Your task to perform on an android device: Go to Wikipedia Image 0: 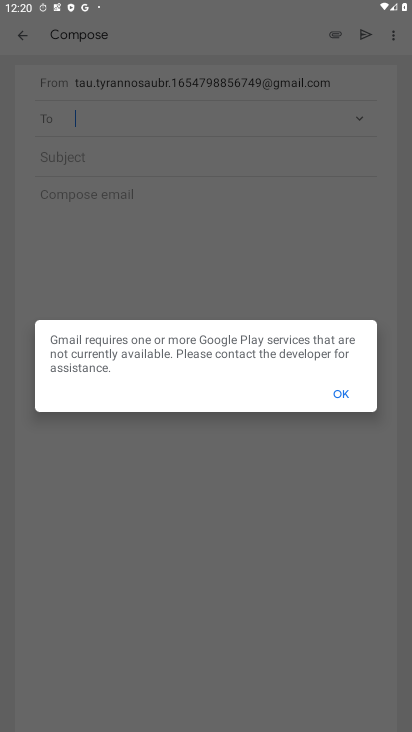
Step 0: press home button
Your task to perform on an android device: Go to Wikipedia Image 1: 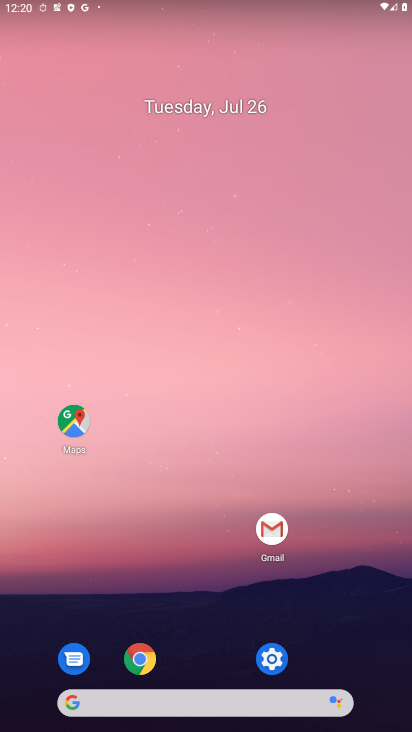
Step 1: click (151, 655)
Your task to perform on an android device: Go to Wikipedia Image 2: 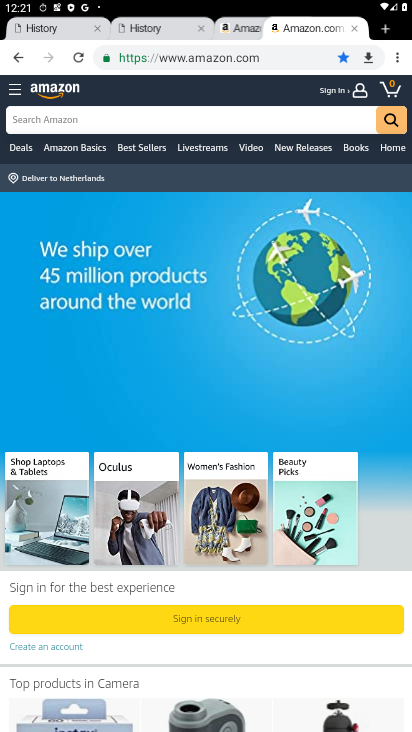
Step 2: click (398, 58)
Your task to perform on an android device: Go to Wikipedia Image 3: 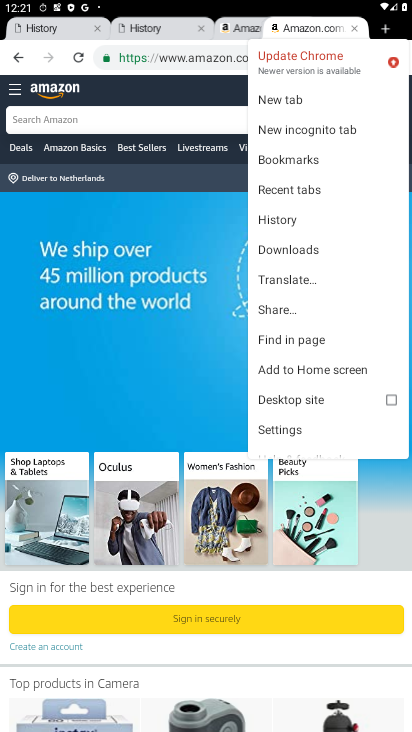
Step 3: click (285, 429)
Your task to perform on an android device: Go to Wikipedia Image 4: 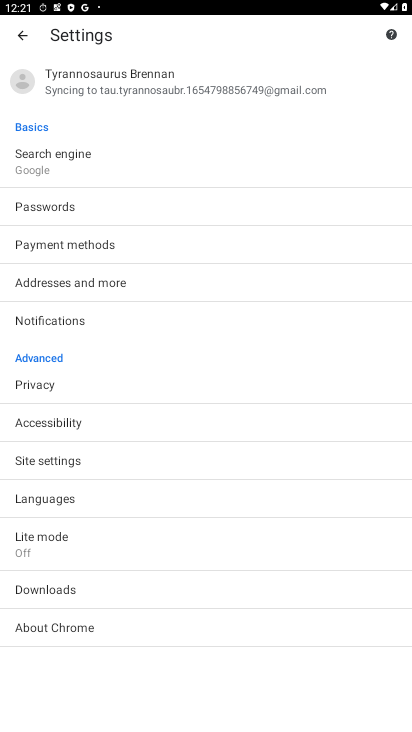
Step 4: click (26, 46)
Your task to perform on an android device: Go to Wikipedia Image 5: 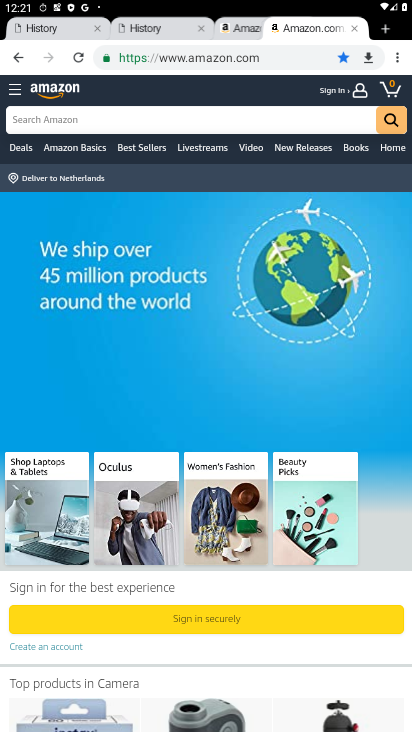
Step 5: click (385, 27)
Your task to perform on an android device: Go to Wikipedia Image 6: 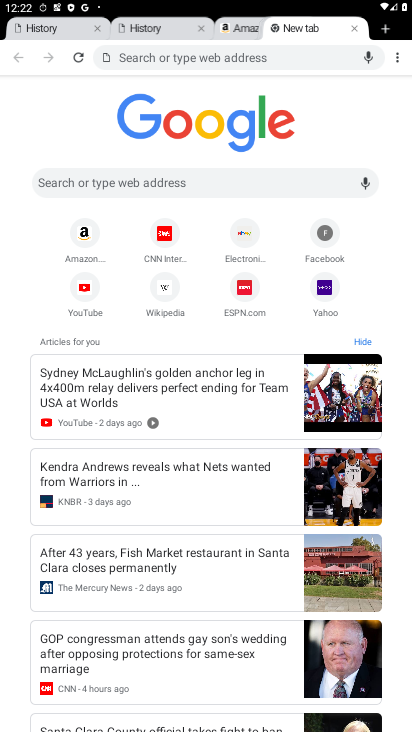
Step 6: click (162, 292)
Your task to perform on an android device: Go to Wikipedia Image 7: 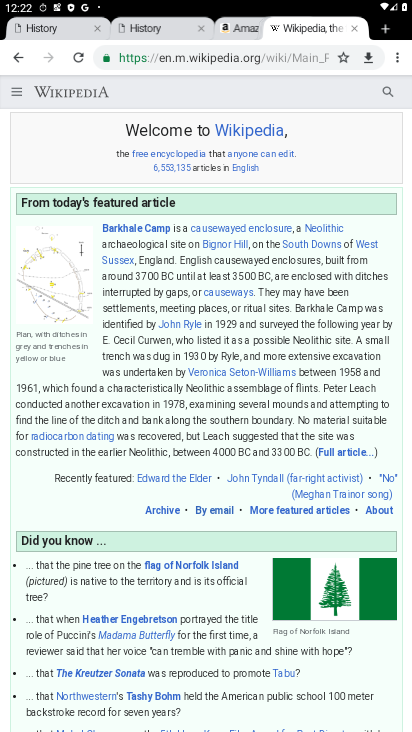
Step 7: task complete